Your task to perform on an android device: Open Yahoo.com Image 0: 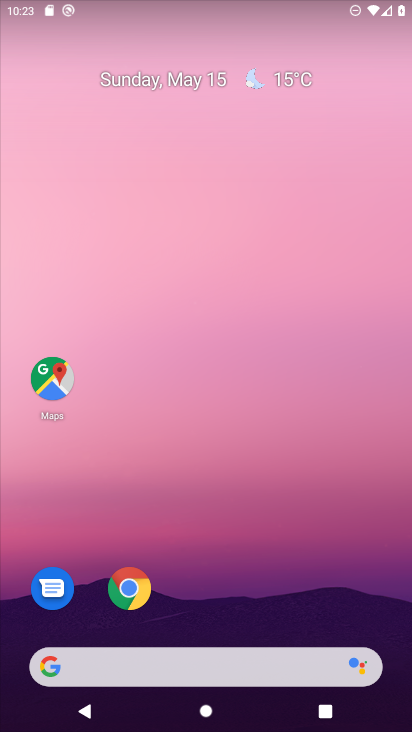
Step 0: click (407, 346)
Your task to perform on an android device: Open Yahoo.com Image 1: 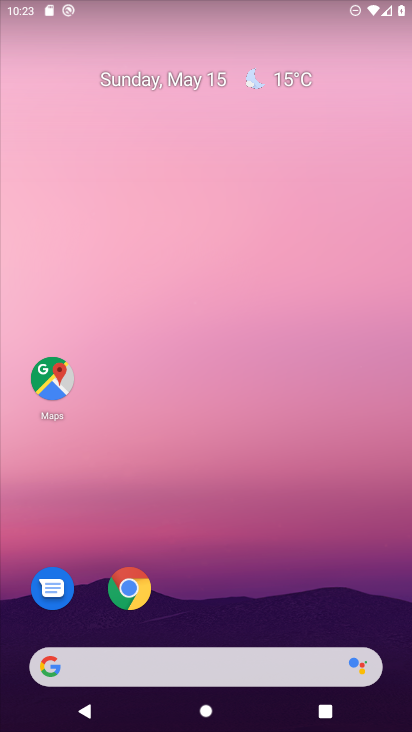
Step 1: click (139, 583)
Your task to perform on an android device: Open Yahoo.com Image 2: 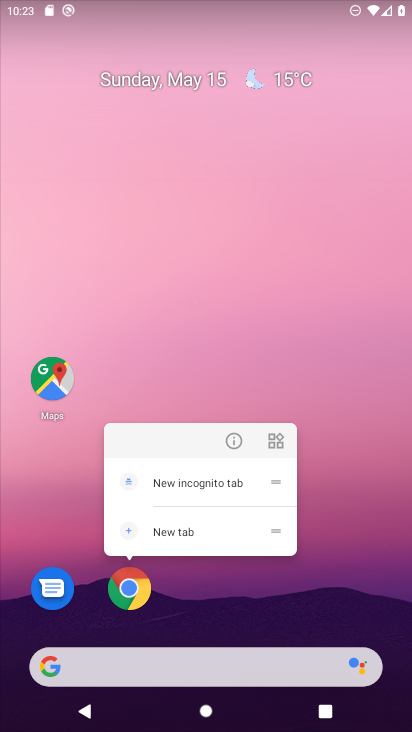
Step 2: click (155, 611)
Your task to perform on an android device: Open Yahoo.com Image 3: 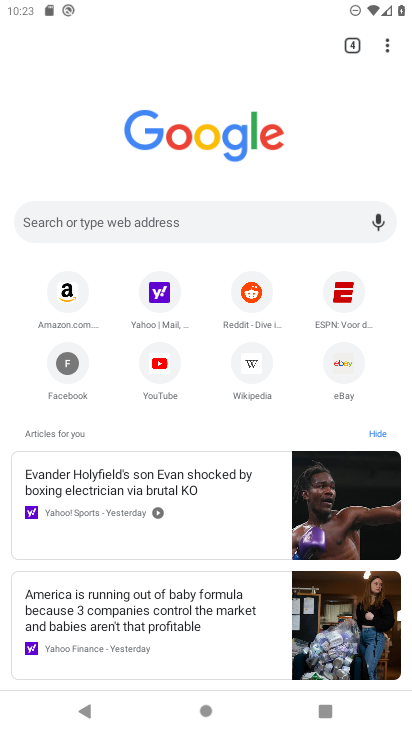
Step 3: click (159, 303)
Your task to perform on an android device: Open Yahoo.com Image 4: 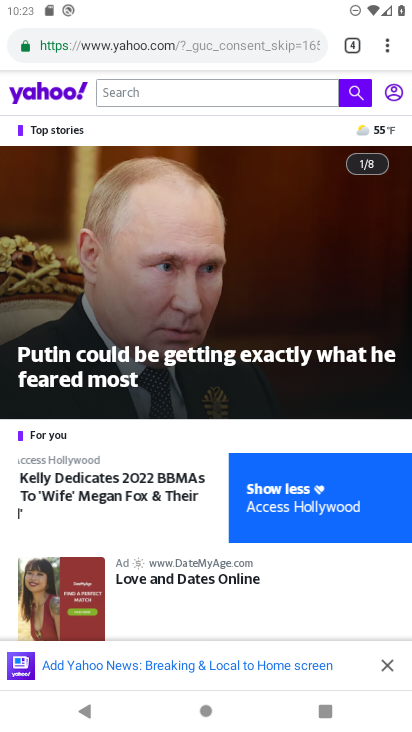
Step 4: task complete